Your task to perform on an android device: check google app version Image 0: 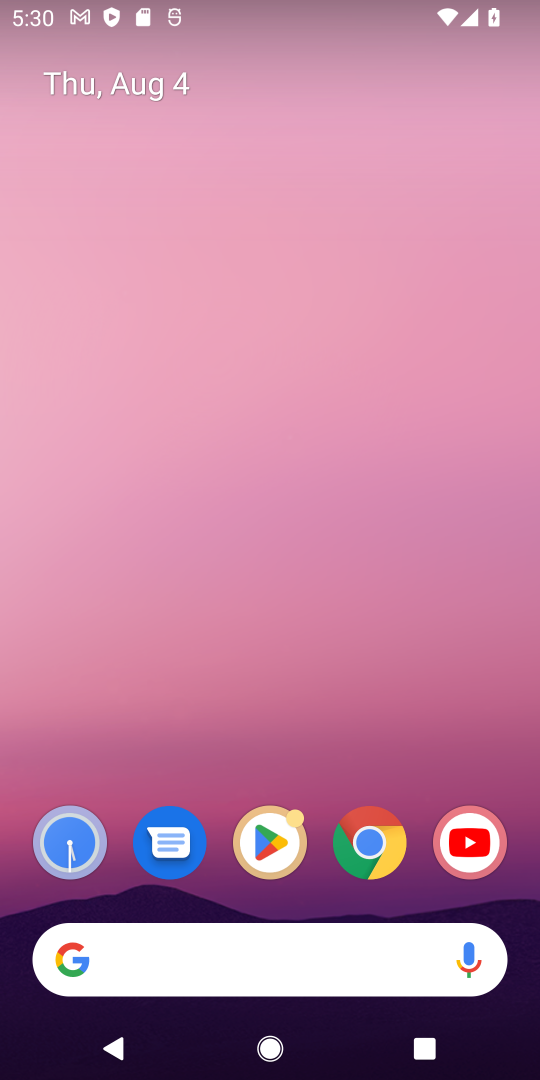
Step 0: drag from (358, 595) to (276, 38)
Your task to perform on an android device: check google app version Image 1: 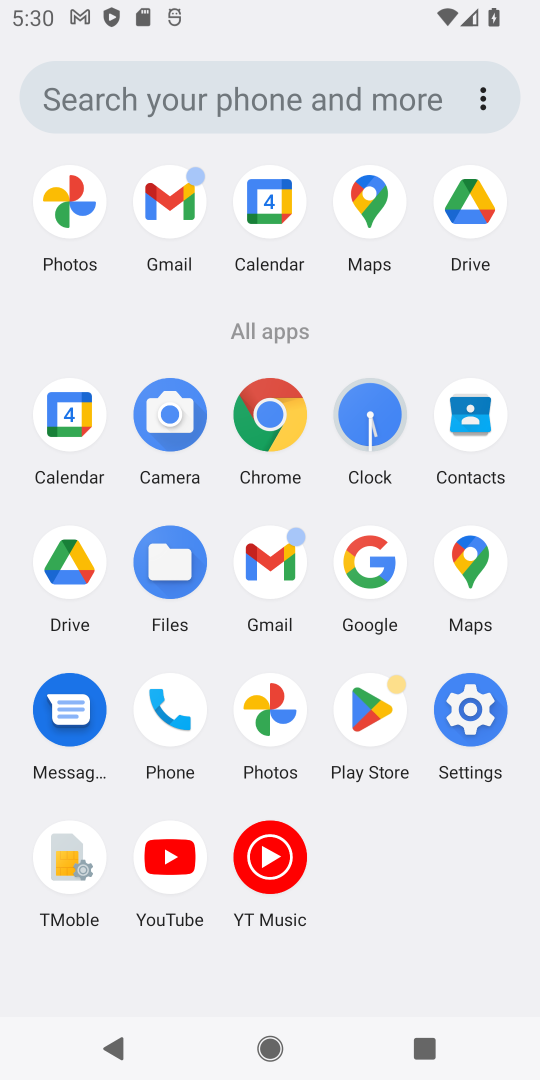
Step 1: drag from (426, 855) to (452, 297)
Your task to perform on an android device: check google app version Image 2: 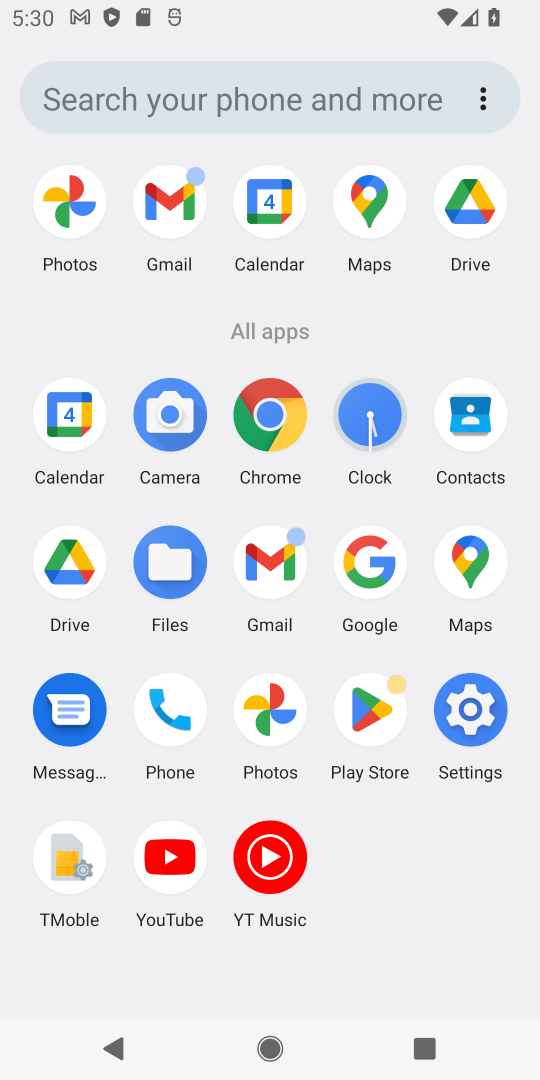
Step 2: click (477, 715)
Your task to perform on an android device: check google app version Image 3: 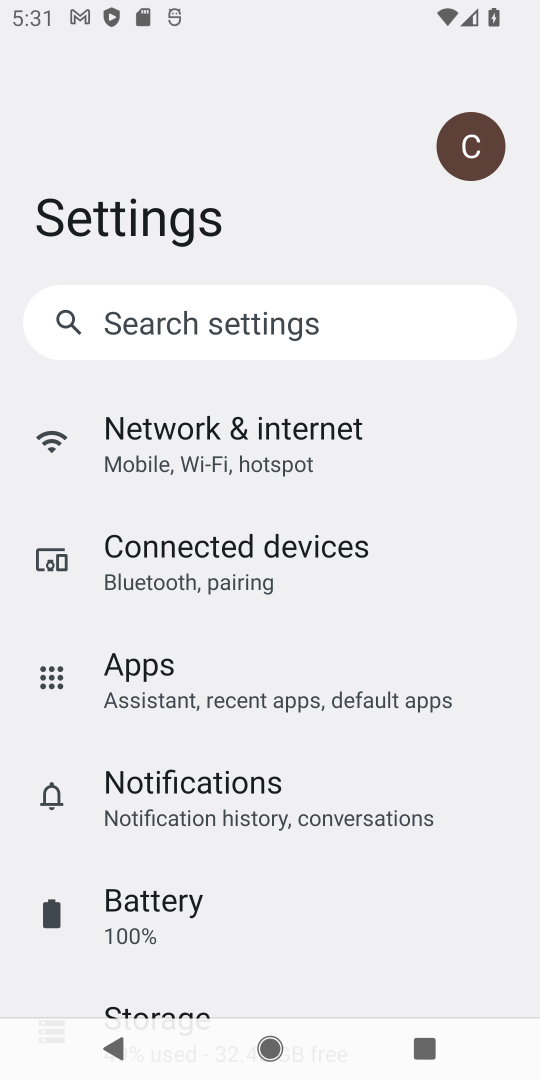
Step 3: drag from (322, 734) to (383, 22)
Your task to perform on an android device: check google app version Image 4: 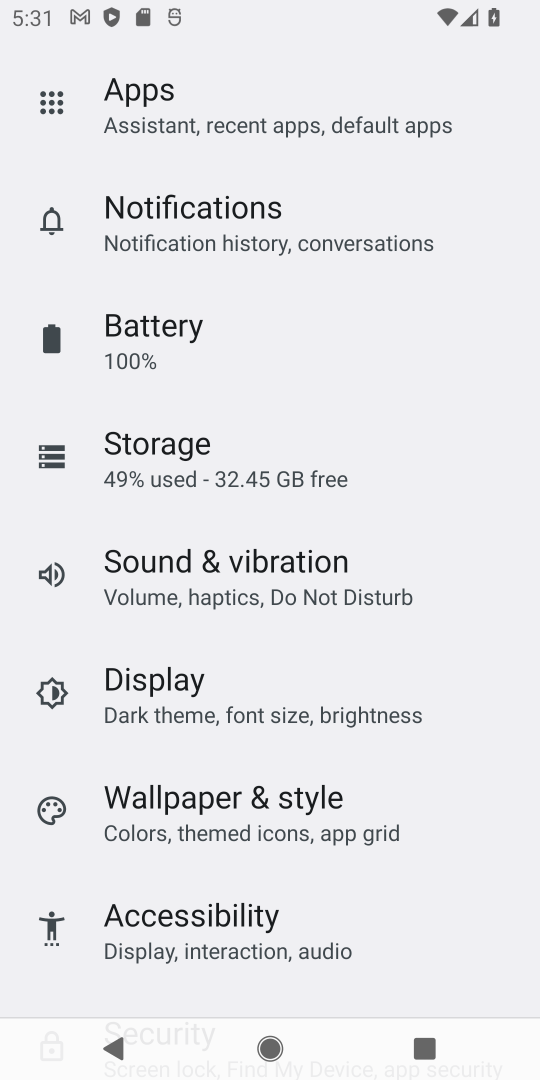
Step 4: press home button
Your task to perform on an android device: check google app version Image 5: 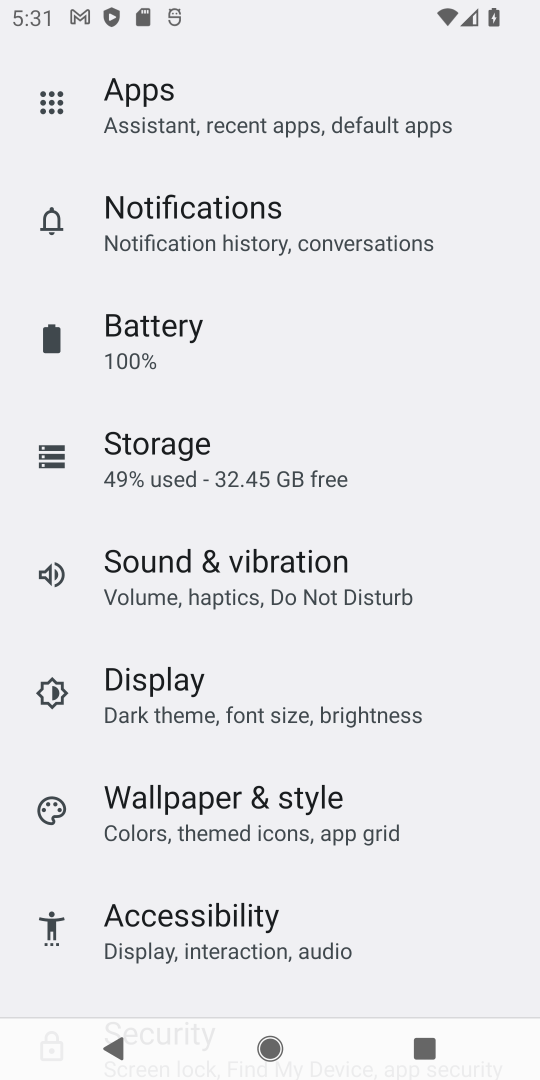
Step 5: press home button
Your task to perform on an android device: check google app version Image 6: 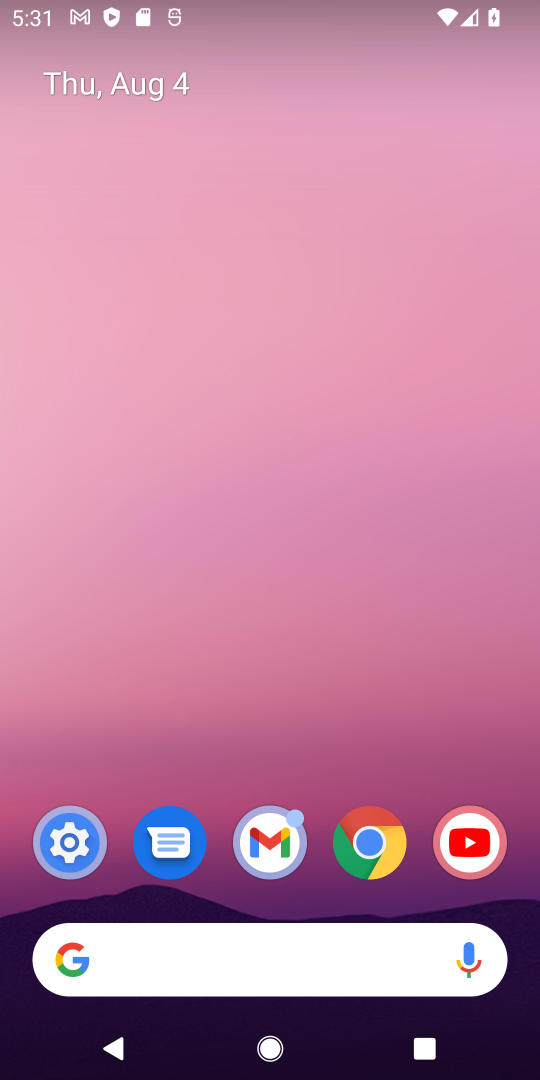
Step 6: drag from (436, 789) to (414, 37)
Your task to perform on an android device: check google app version Image 7: 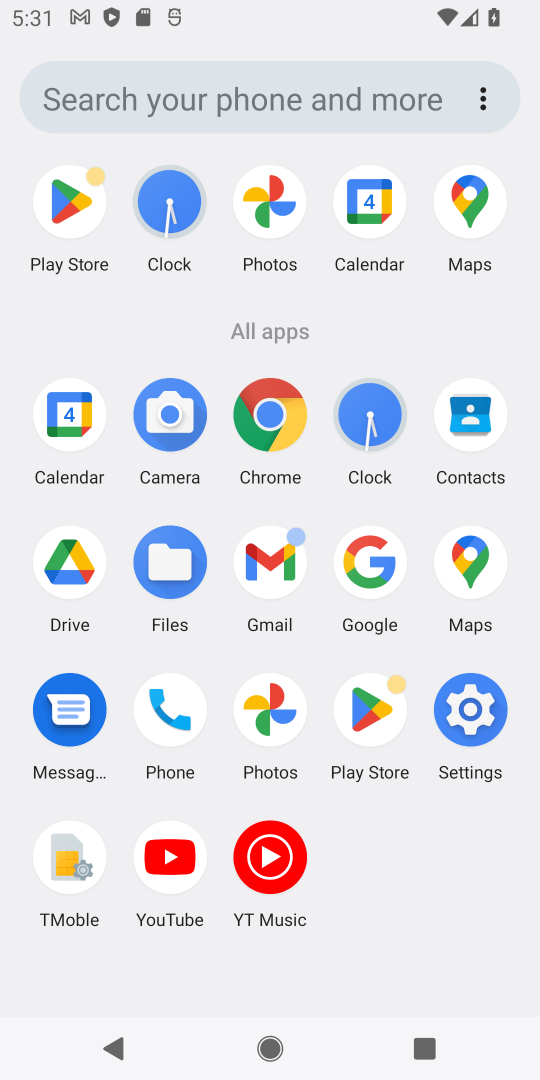
Step 7: click (368, 576)
Your task to perform on an android device: check google app version Image 8: 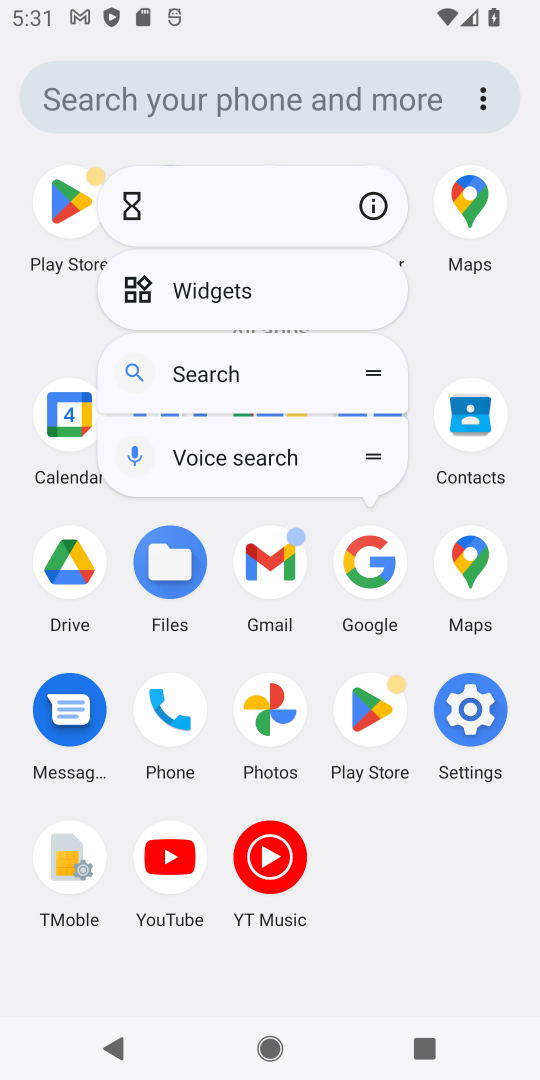
Step 8: click (373, 201)
Your task to perform on an android device: check google app version Image 9: 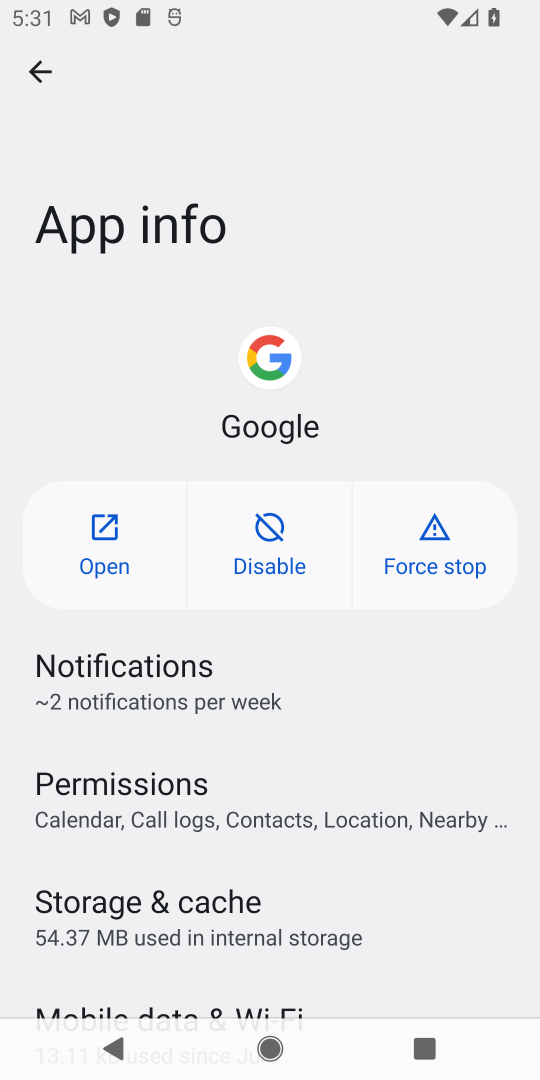
Step 9: task complete